Your task to perform on an android device: Search for vegetarian restaurants on Maps Image 0: 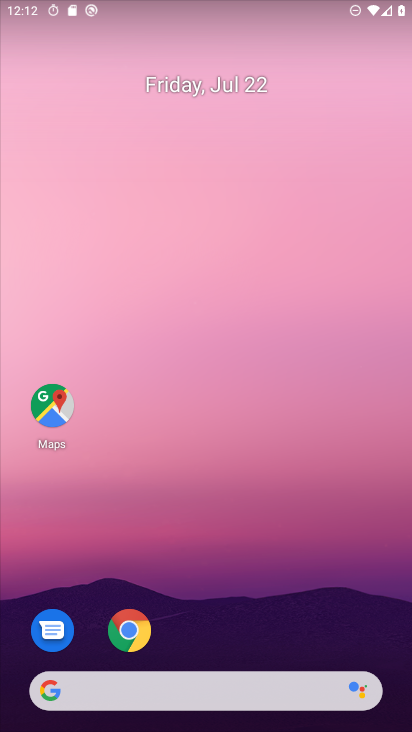
Step 0: click (55, 406)
Your task to perform on an android device: Search for vegetarian restaurants on Maps Image 1: 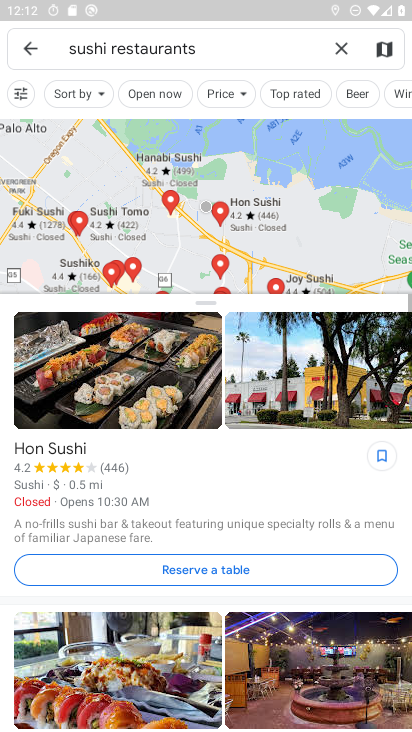
Step 1: click (32, 53)
Your task to perform on an android device: Search for vegetarian restaurants on Maps Image 2: 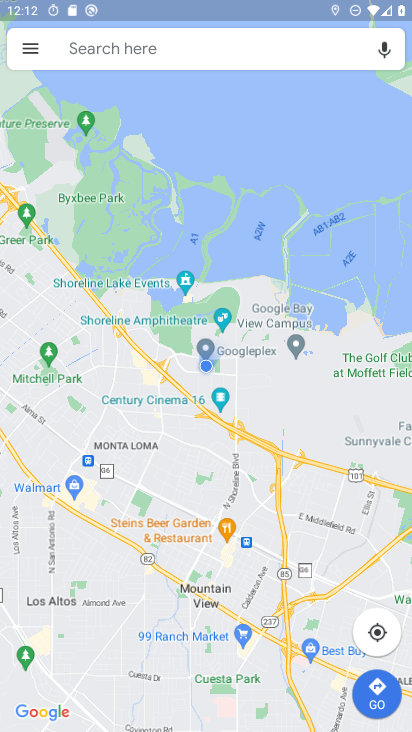
Step 2: type "vegetarian restaurants"
Your task to perform on an android device: Search for vegetarian restaurants on Maps Image 3: 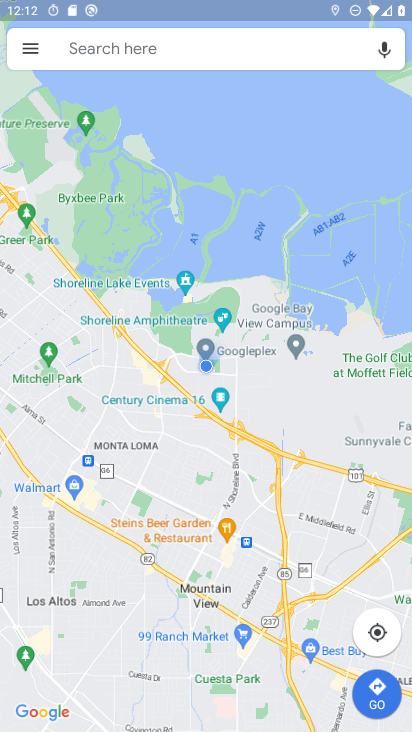
Step 3: click (89, 44)
Your task to perform on an android device: Search for vegetarian restaurants on Maps Image 4: 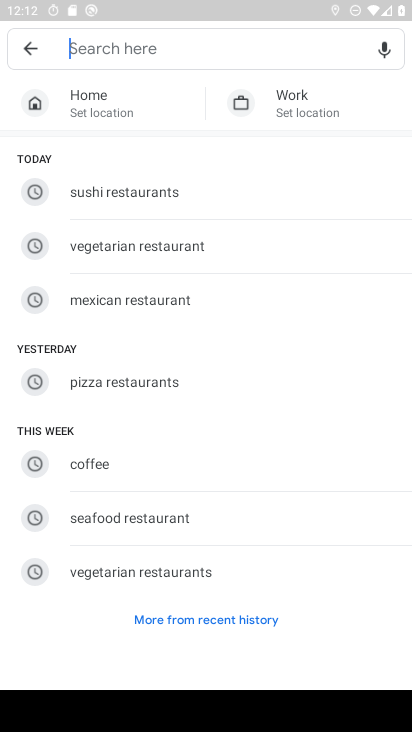
Step 4: click (129, 238)
Your task to perform on an android device: Search for vegetarian restaurants on Maps Image 5: 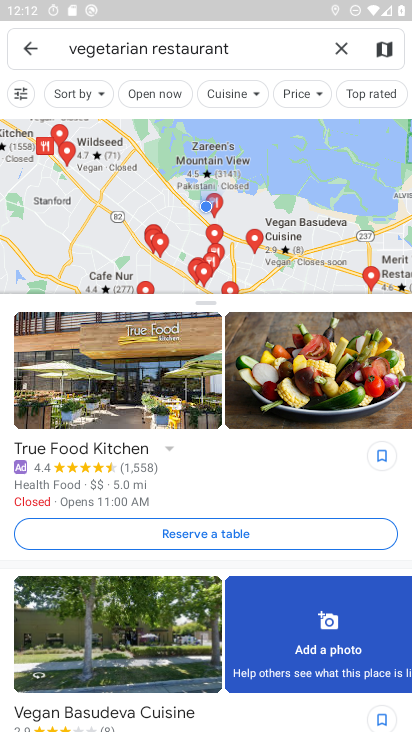
Step 5: task complete